Your task to perform on an android device: Set the phone to "Do not disturb". Image 0: 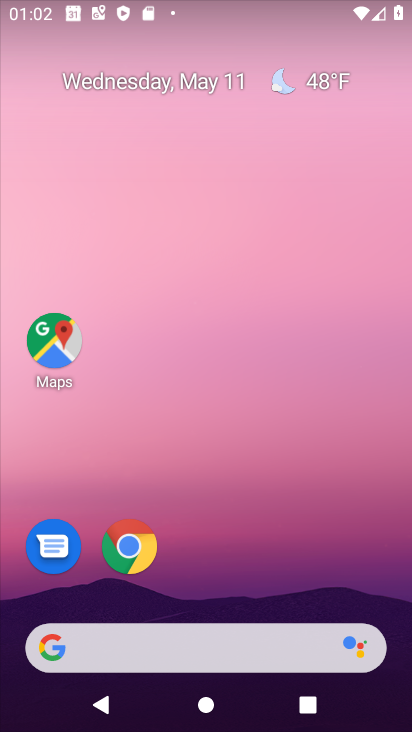
Step 0: drag from (202, 599) to (213, 153)
Your task to perform on an android device: Set the phone to "Do not disturb". Image 1: 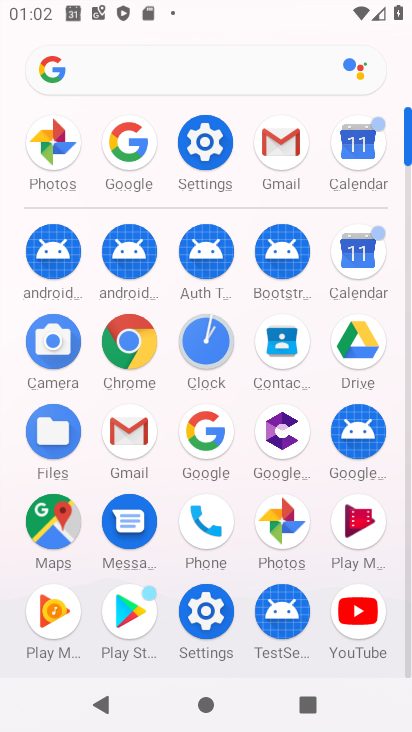
Step 1: click (213, 153)
Your task to perform on an android device: Set the phone to "Do not disturb". Image 2: 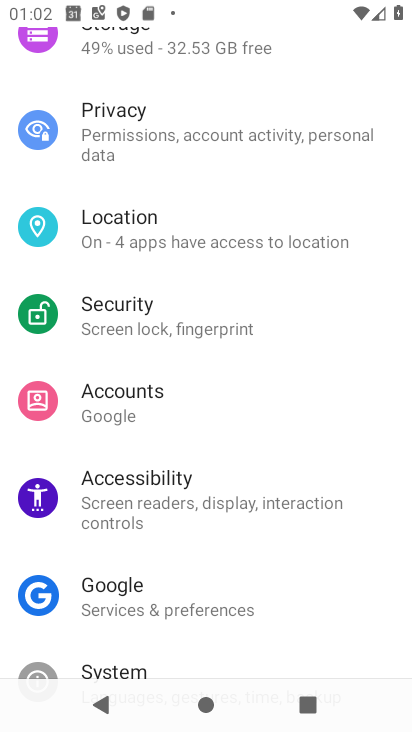
Step 2: drag from (196, 246) to (196, 527)
Your task to perform on an android device: Set the phone to "Do not disturb". Image 3: 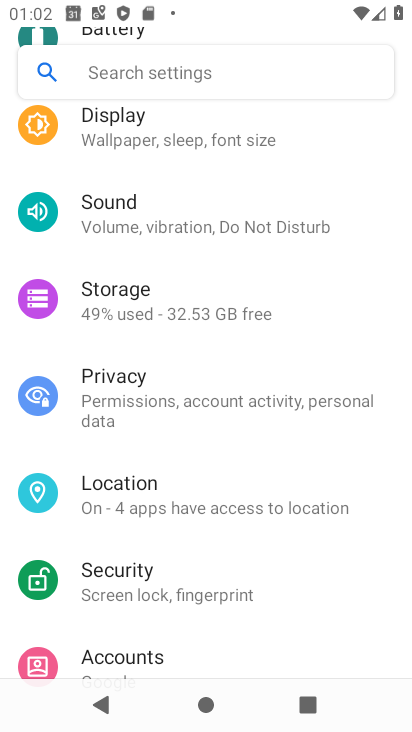
Step 3: click (163, 207)
Your task to perform on an android device: Set the phone to "Do not disturb". Image 4: 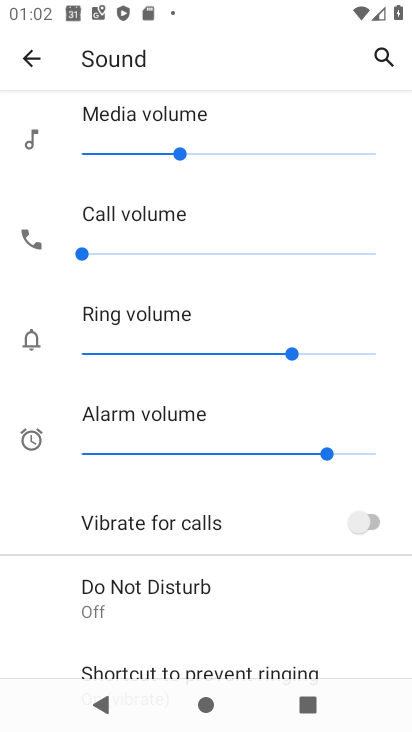
Step 4: click (184, 579)
Your task to perform on an android device: Set the phone to "Do not disturb". Image 5: 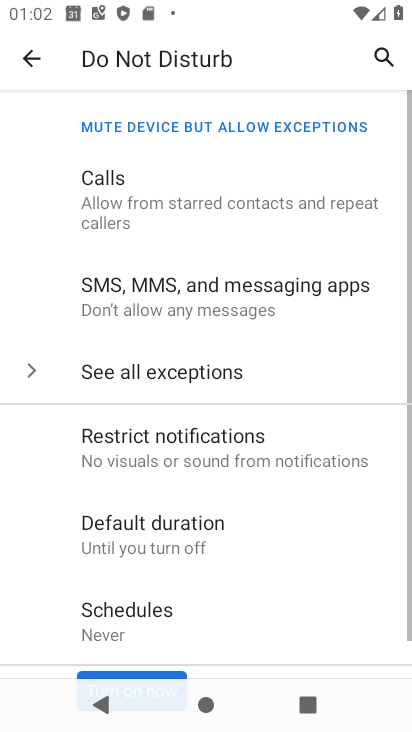
Step 5: drag from (184, 579) to (223, 221)
Your task to perform on an android device: Set the phone to "Do not disturb". Image 6: 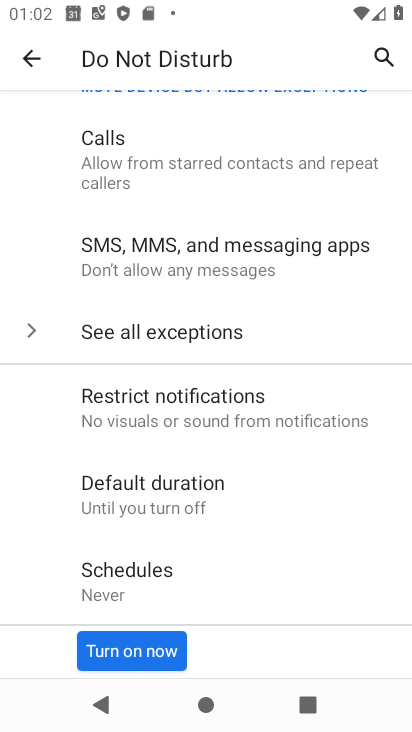
Step 6: click (150, 630)
Your task to perform on an android device: Set the phone to "Do not disturb". Image 7: 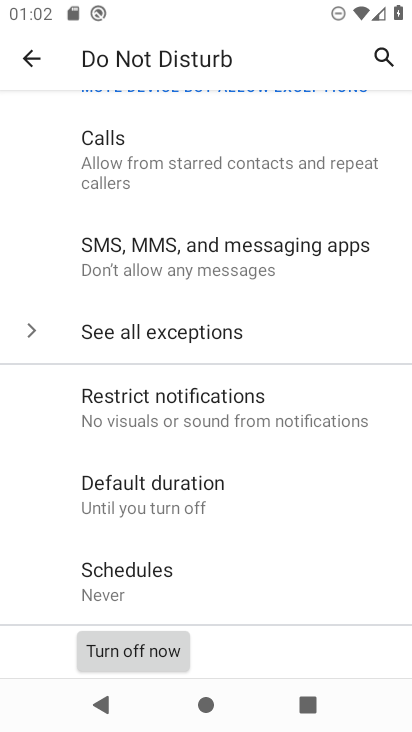
Step 7: task complete